Your task to perform on an android device: change notifications settings Image 0: 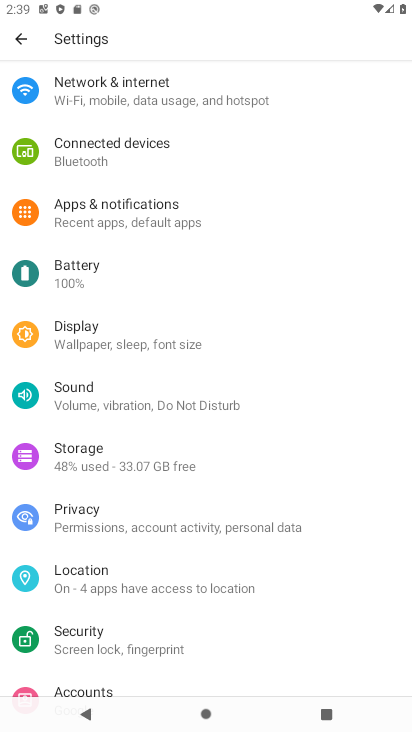
Step 0: click (128, 225)
Your task to perform on an android device: change notifications settings Image 1: 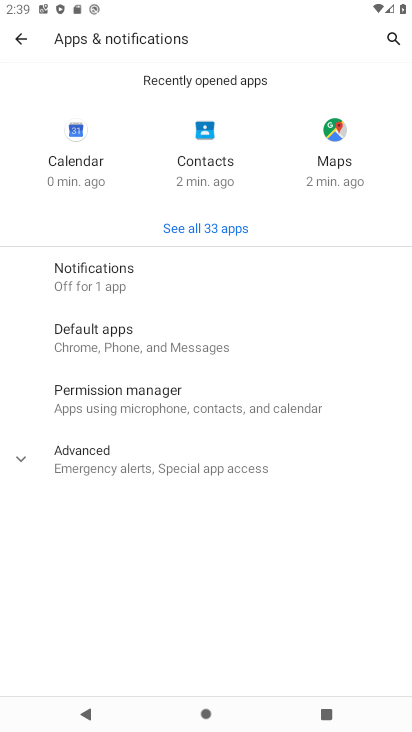
Step 1: click (112, 274)
Your task to perform on an android device: change notifications settings Image 2: 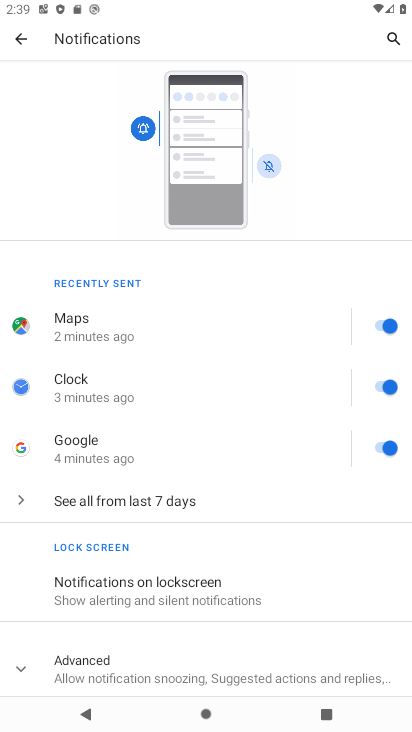
Step 2: click (154, 504)
Your task to perform on an android device: change notifications settings Image 3: 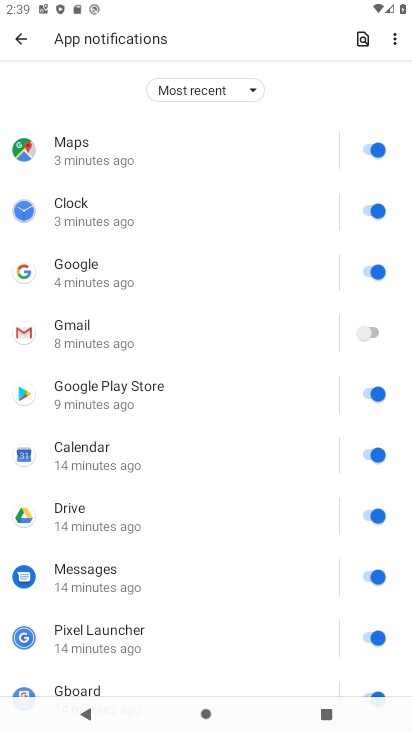
Step 3: click (248, 93)
Your task to perform on an android device: change notifications settings Image 4: 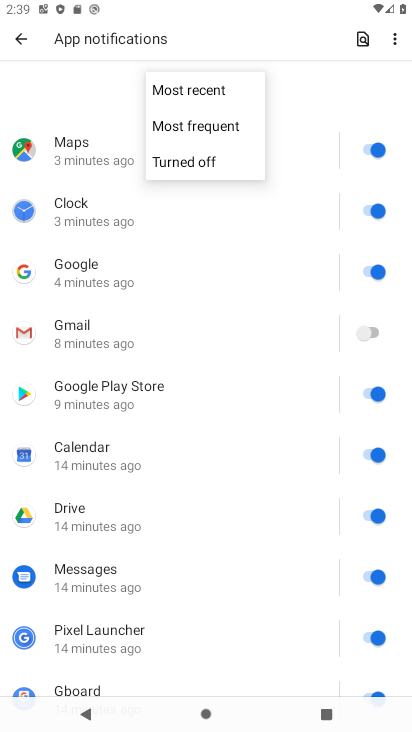
Step 4: click (194, 132)
Your task to perform on an android device: change notifications settings Image 5: 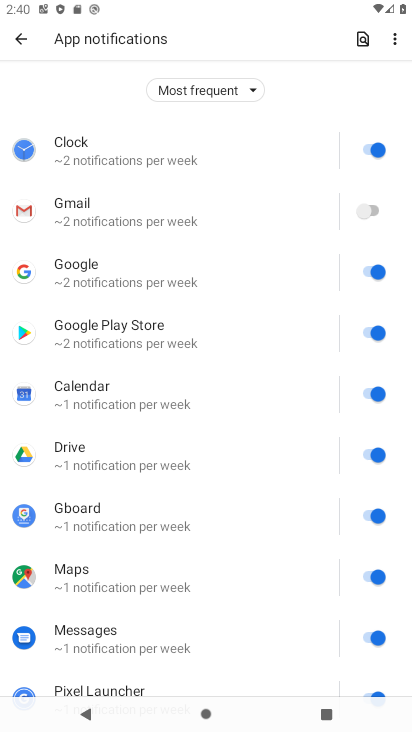
Step 5: task complete